Your task to perform on an android device: Open Maps and search for coffee Image 0: 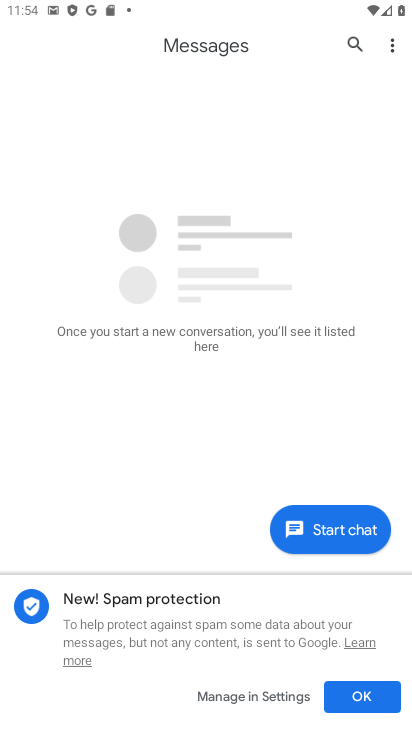
Step 0: press home button
Your task to perform on an android device: Open Maps and search for coffee Image 1: 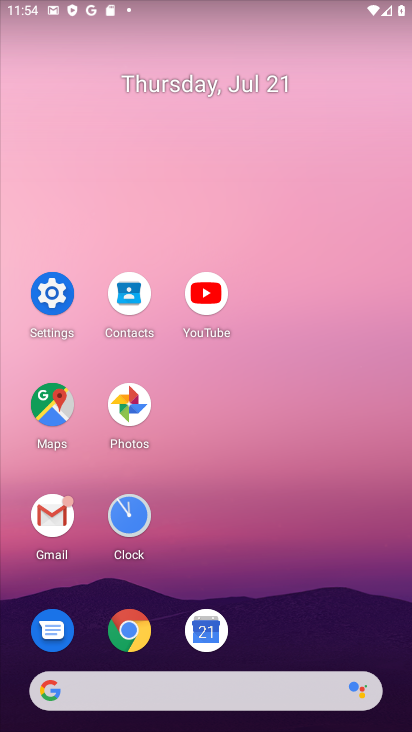
Step 1: click (51, 405)
Your task to perform on an android device: Open Maps and search for coffee Image 2: 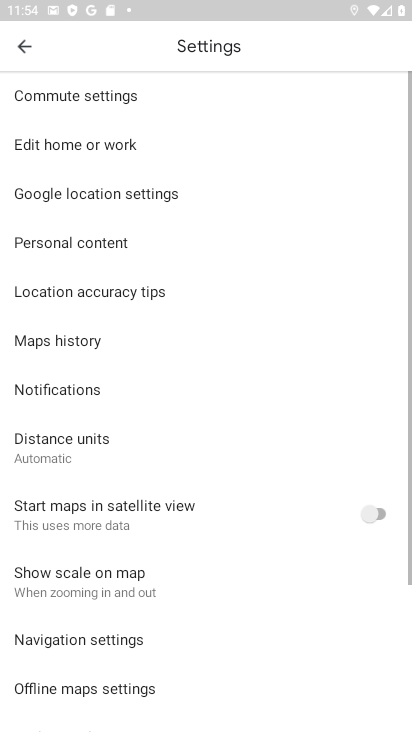
Step 2: click (26, 46)
Your task to perform on an android device: Open Maps and search for coffee Image 3: 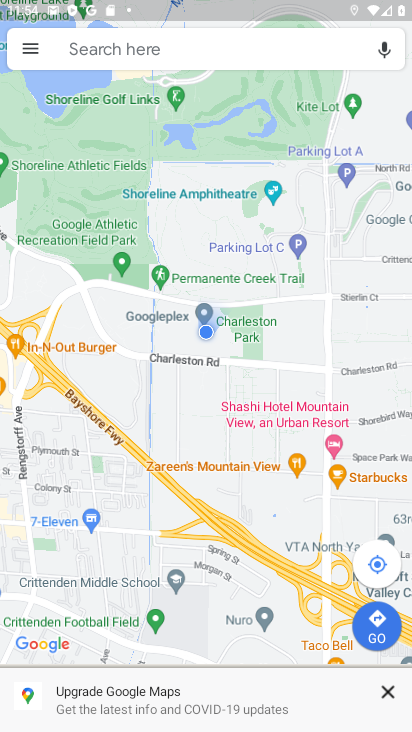
Step 3: click (140, 44)
Your task to perform on an android device: Open Maps and search for coffee Image 4: 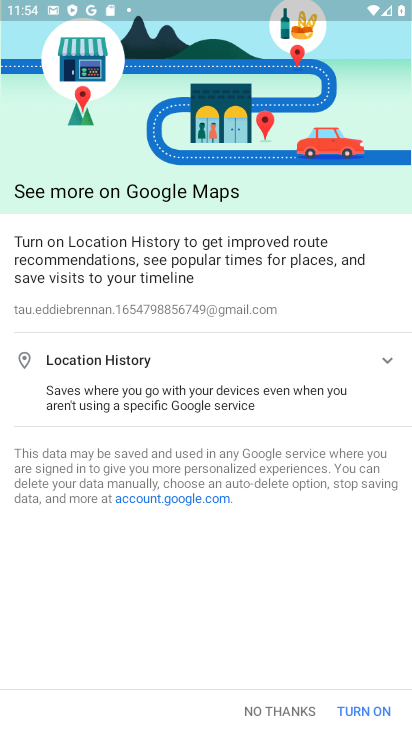
Step 4: click (346, 712)
Your task to perform on an android device: Open Maps and search for coffee Image 5: 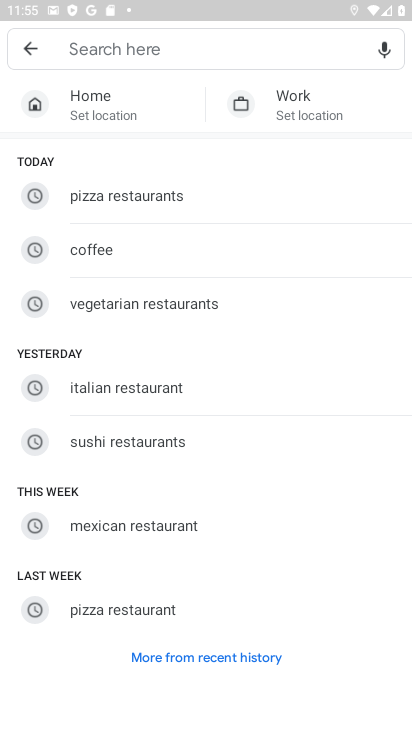
Step 5: click (84, 248)
Your task to perform on an android device: Open Maps and search for coffee Image 6: 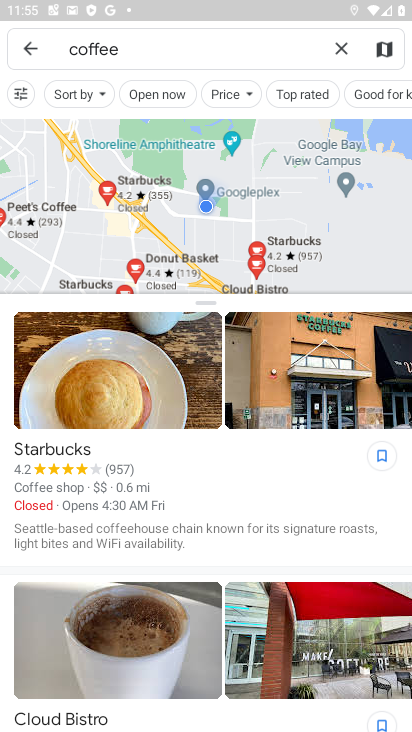
Step 6: task complete